Your task to perform on an android device: turn off wifi Image 0: 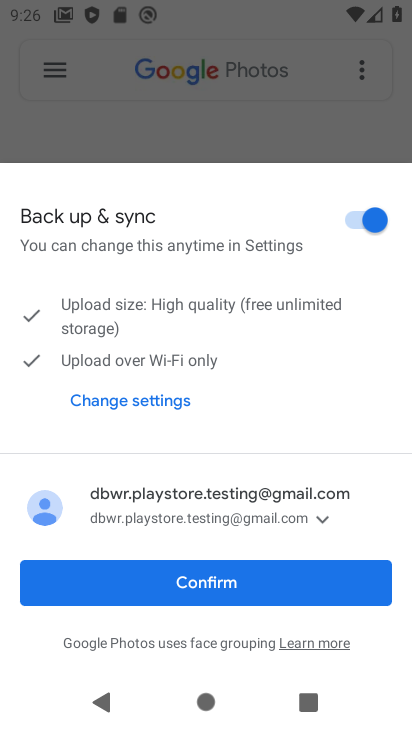
Step 0: press home button
Your task to perform on an android device: turn off wifi Image 1: 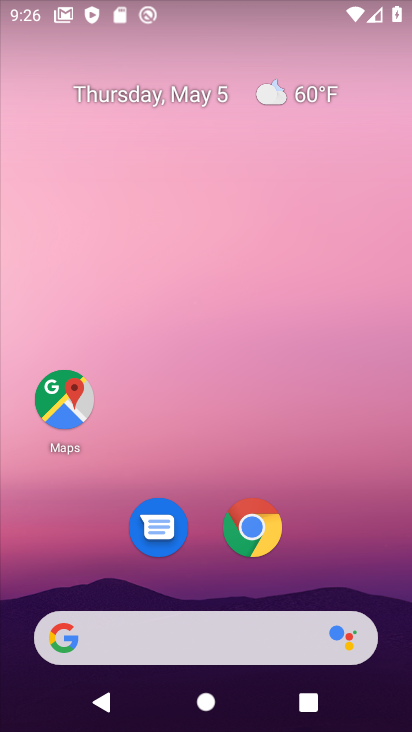
Step 1: drag from (280, 574) to (340, 127)
Your task to perform on an android device: turn off wifi Image 2: 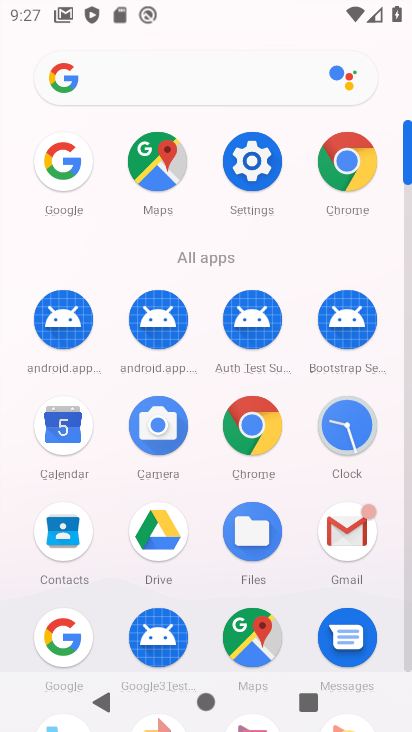
Step 2: click (259, 152)
Your task to perform on an android device: turn off wifi Image 3: 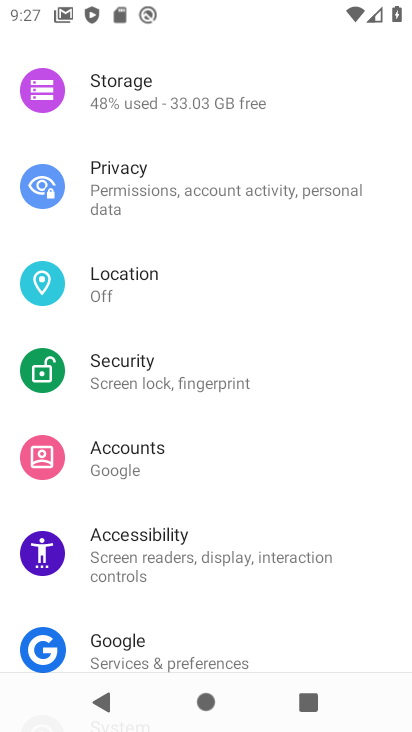
Step 3: drag from (276, 171) to (200, 629)
Your task to perform on an android device: turn off wifi Image 4: 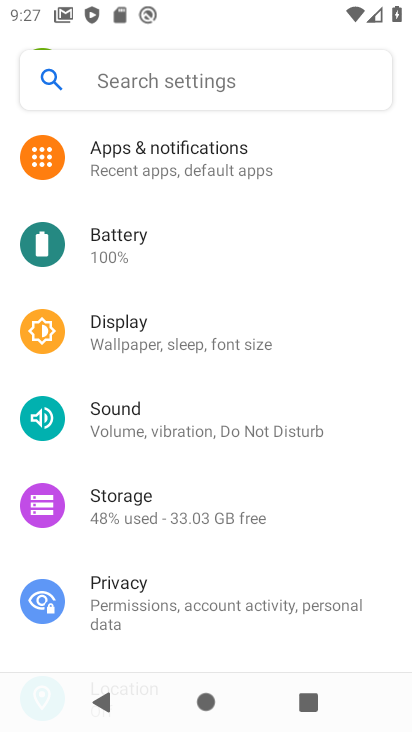
Step 4: drag from (275, 189) to (261, 521)
Your task to perform on an android device: turn off wifi Image 5: 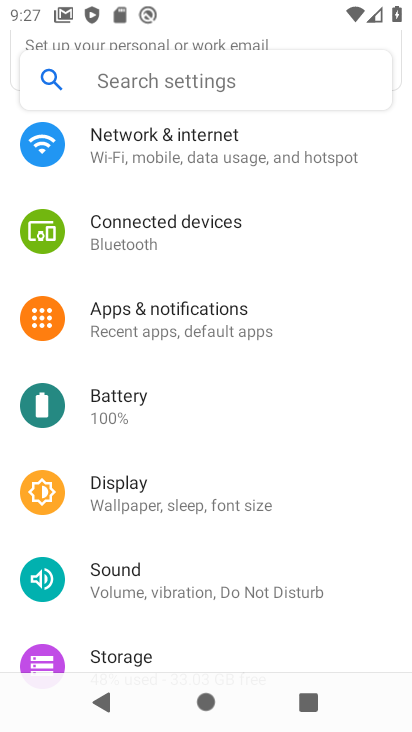
Step 5: click (216, 154)
Your task to perform on an android device: turn off wifi Image 6: 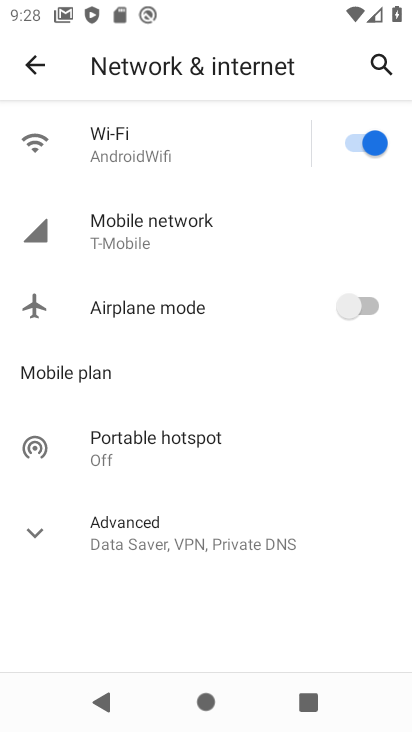
Step 6: click (359, 139)
Your task to perform on an android device: turn off wifi Image 7: 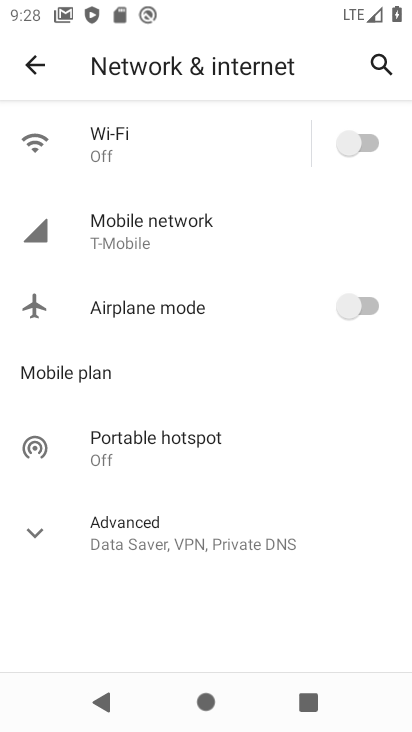
Step 7: task complete